Your task to perform on an android device: Go to network settings Image 0: 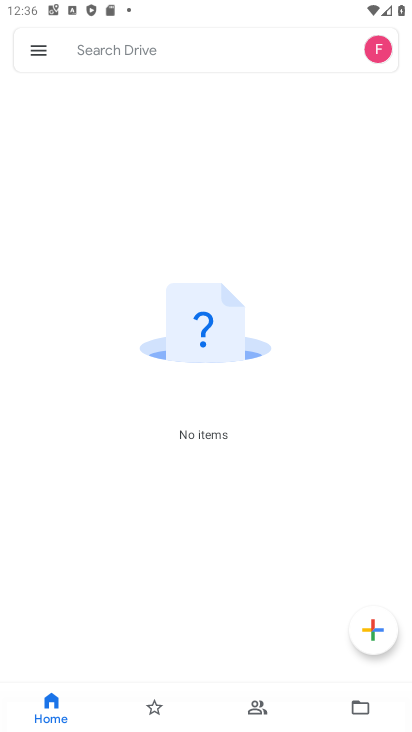
Step 0: press home button
Your task to perform on an android device: Go to network settings Image 1: 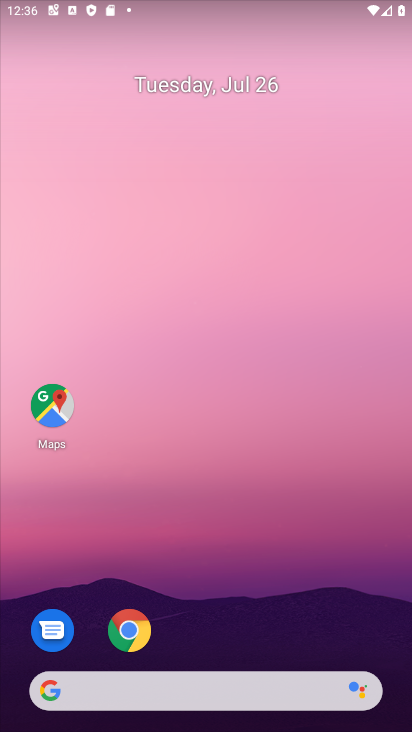
Step 1: drag from (314, 345) to (285, 138)
Your task to perform on an android device: Go to network settings Image 2: 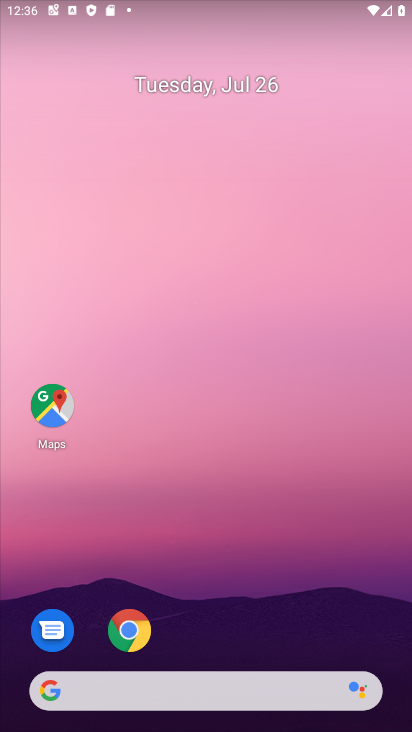
Step 2: drag from (371, 642) to (330, 41)
Your task to perform on an android device: Go to network settings Image 3: 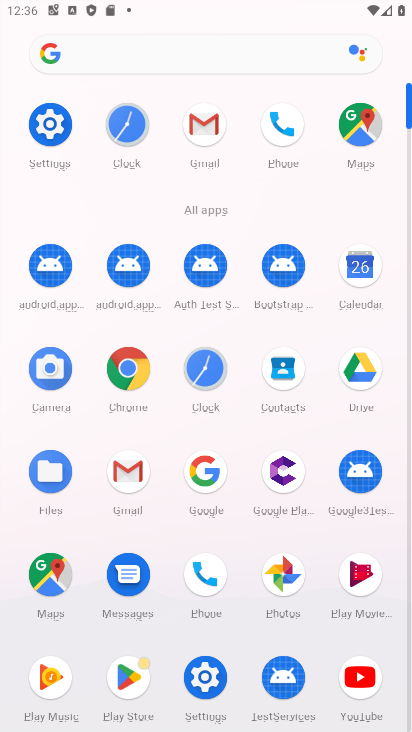
Step 3: click (204, 675)
Your task to perform on an android device: Go to network settings Image 4: 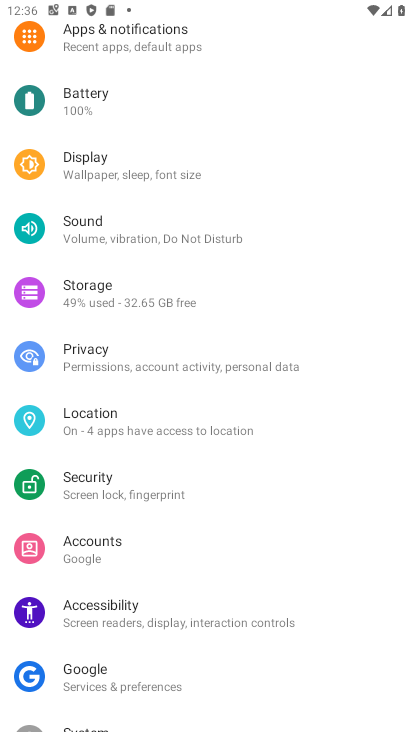
Step 4: drag from (309, 168) to (303, 497)
Your task to perform on an android device: Go to network settings Image 5: 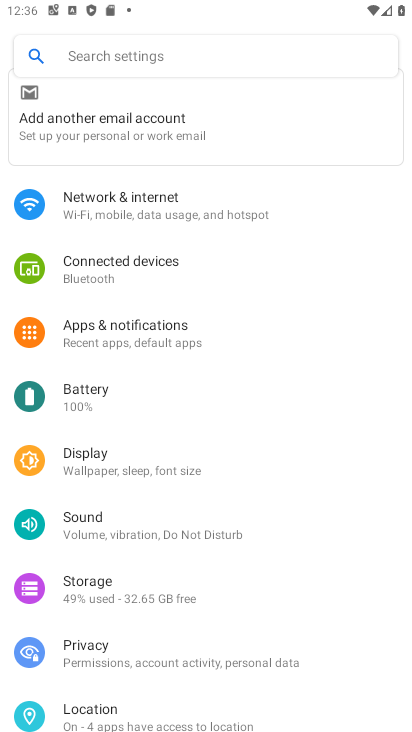
Step 5: click (122, 201)
Your task to perform on an android device: Go to network settings Image 6: 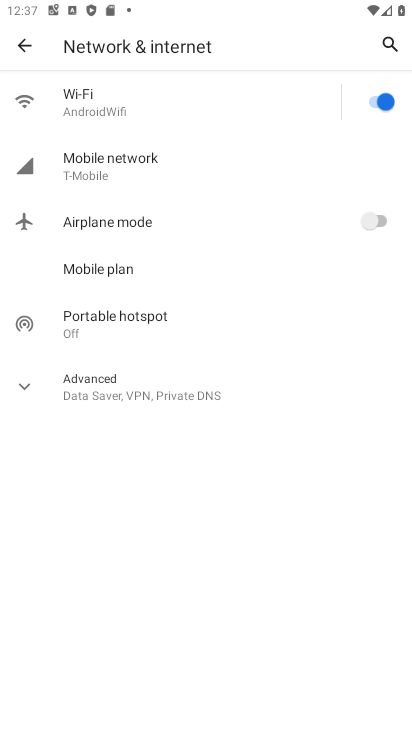
Step 6: click (101, 161)
Your task to perform on an android device: Go to network settings Image 7: 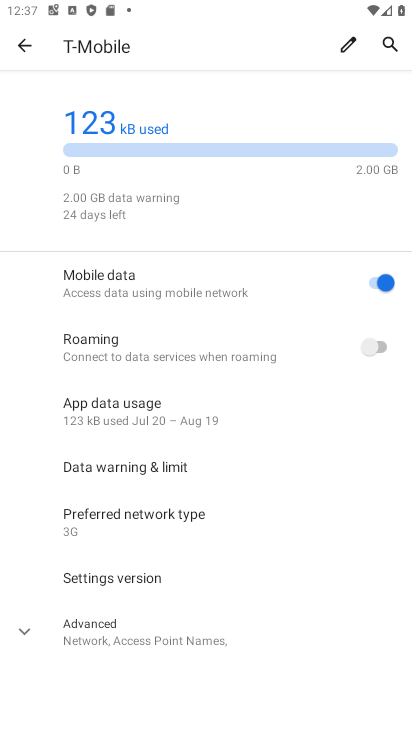
Step 7: click (19, 631)
Your task to perform on an android device: Go to network settings Image 8: 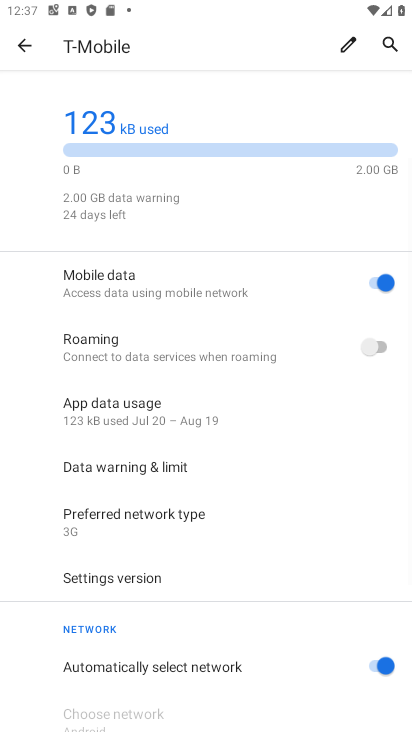
Step 8: task complete